Your task to perform on an android device: delete a single message in the gmail app Image 0: 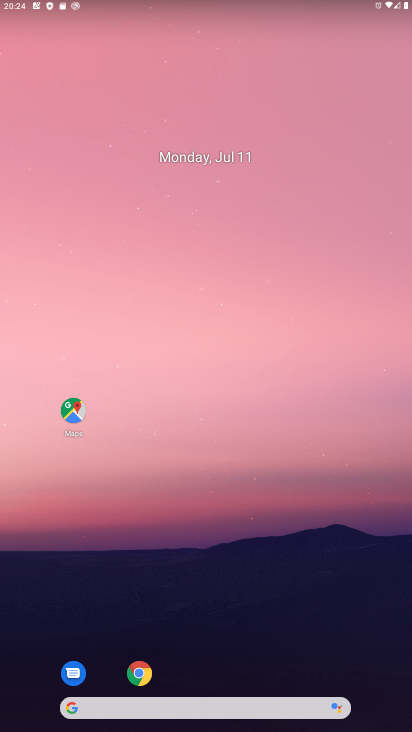
Step 0: drag from (219, 674) to (206, 4)
Your task to perform on an android device: delete a single message in the gmail app Image 1: 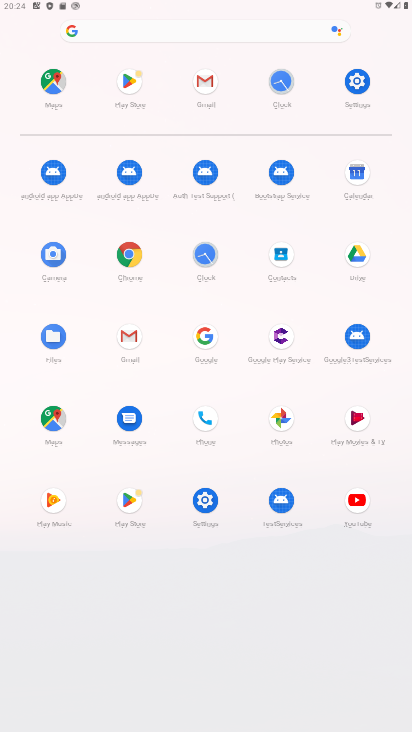
Step 1: click (131, 332)
Your task to perform on an android device: delete a single message in the gmail app Image 2: 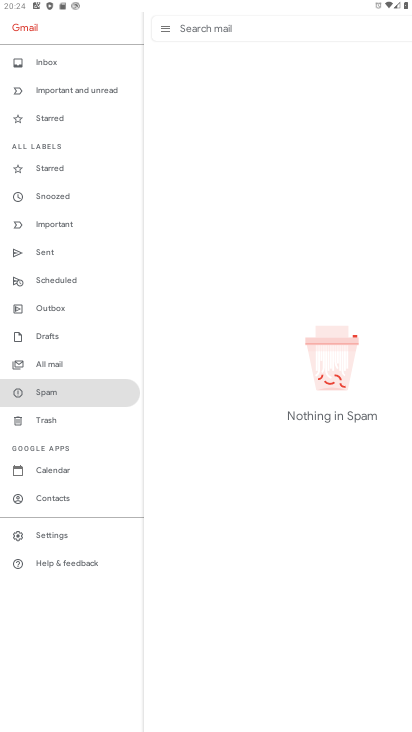
Step 2: task complete